Your task to perform on an android device: What is the news today? Image 0: 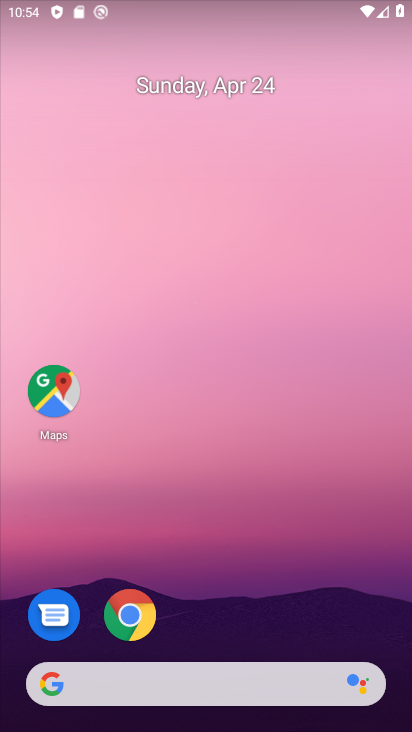
Step 0: click (293, 609)
Your task to perform on an android device: What is the news today? Image 1: 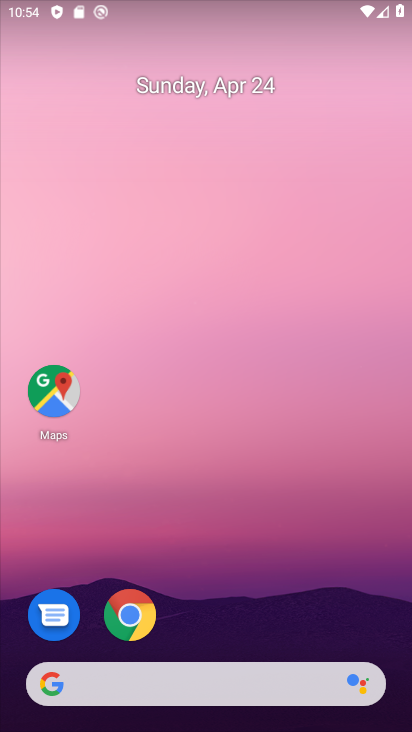
Step 1: click (141, 620)
Your task to perform on an android device: What is the news today? Image 2: 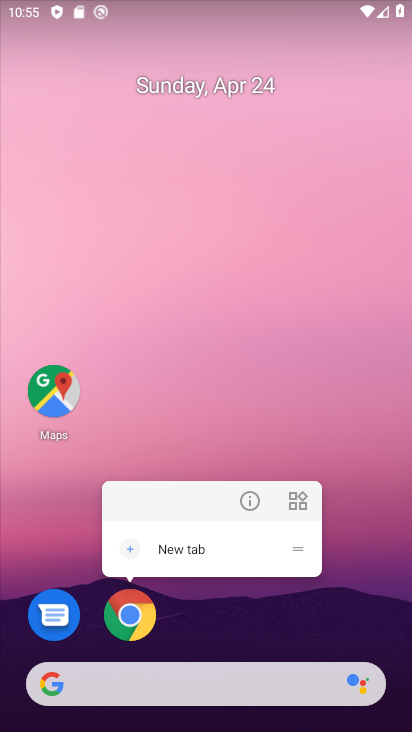
Step 2: click (129, 602)
Your task to perform on an android device: What is the news today? Image 3: 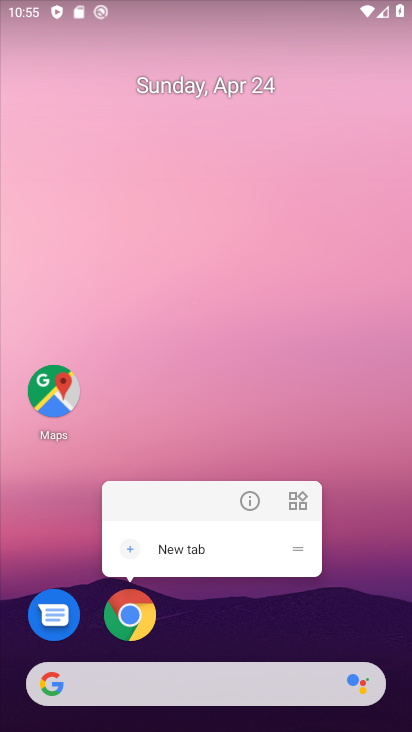
Step 3: click (128, 616)
Your task to perform on an android device: What is the news today? Image 4: 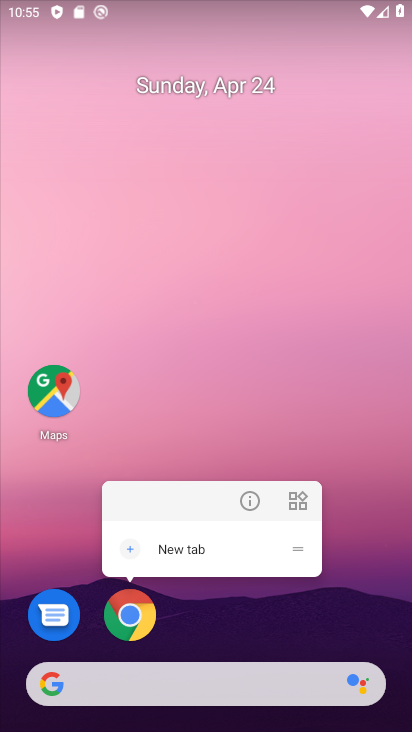
Step 4: click (128, 616)
Your task to perform on an android device: What is the news today? Image 5: 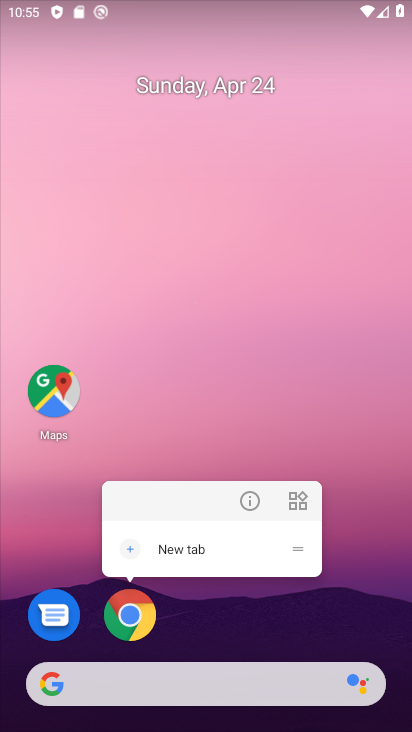
Step 5: click (128, 616)
Your task to perform on an android device: What is the news today? Image 6: 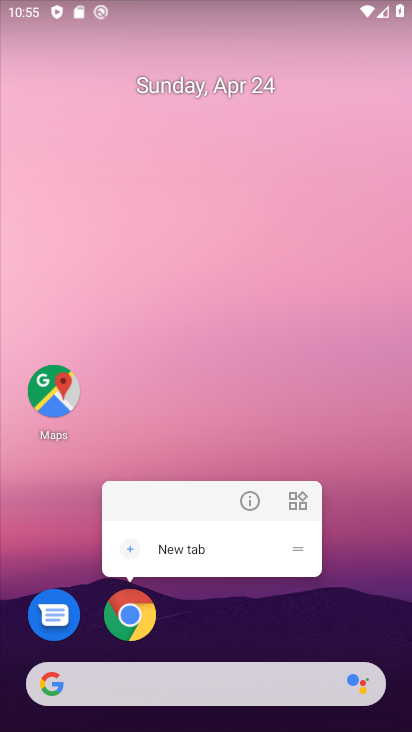
Step 6: click (128, 616)
Your task to perform on an android device: What is the news today? Image 7: 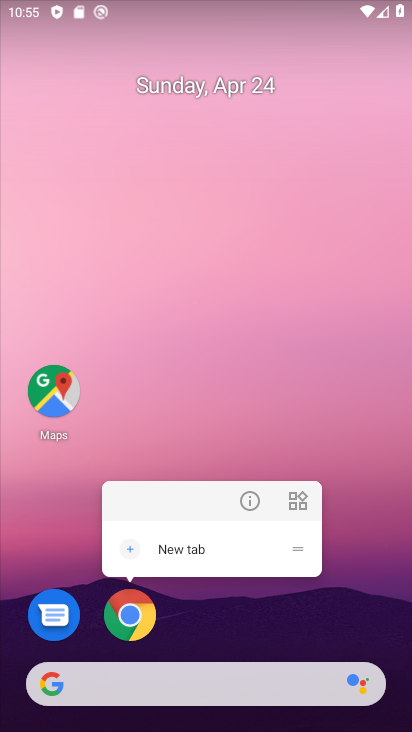
Step 7: click (146, 633)
Your task to perform on an android device: What is the news today? Image 8: 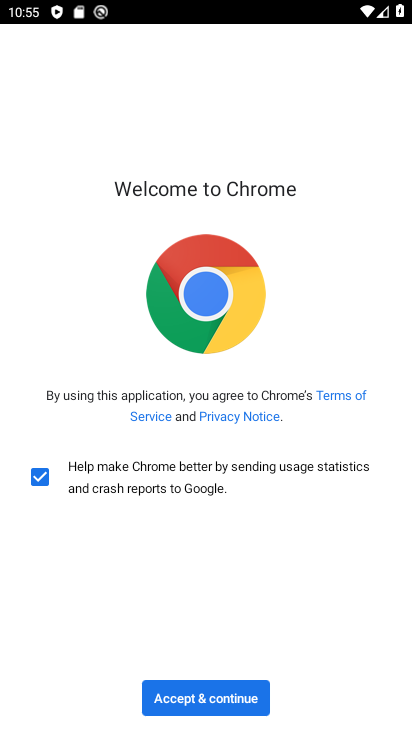
Step 8: click (213, 709)
Your task to perform on an android device: What is the news today? Image 9: 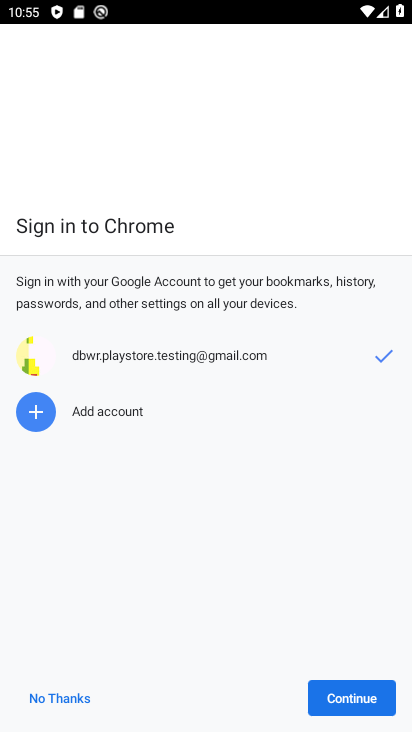
Step 9: click (360, 707)
Your task to perform on an android device: What is the news today? Image 10: 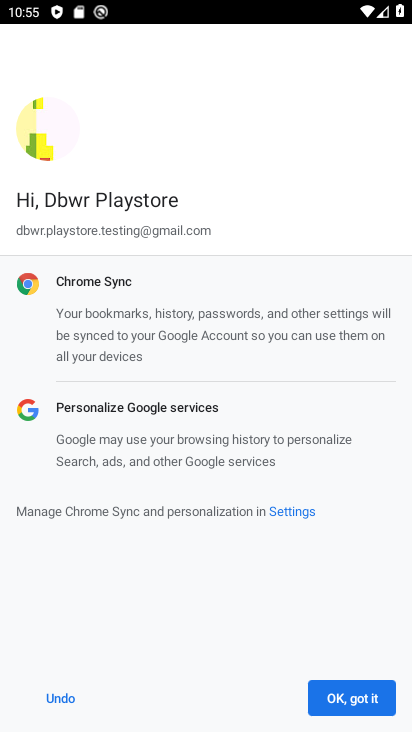
Step 10: click (360, 707)
Your task to perform on an android device: What is the news today? Image 11: 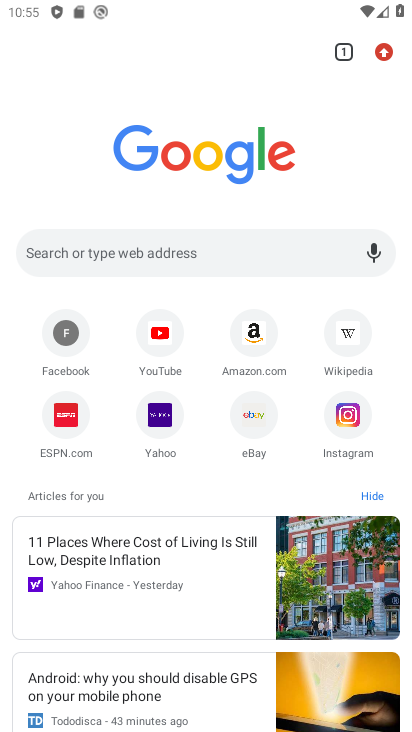
Step 11: task complete